Your task to perform on an android device: Open settings Image 0: 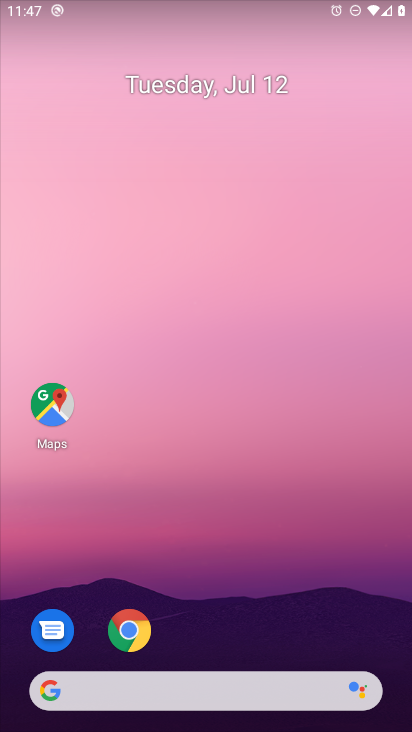
Step 0: drag from (300, 577) to (314, 17)
Your task to perform on an android device: Open settings Image 1: 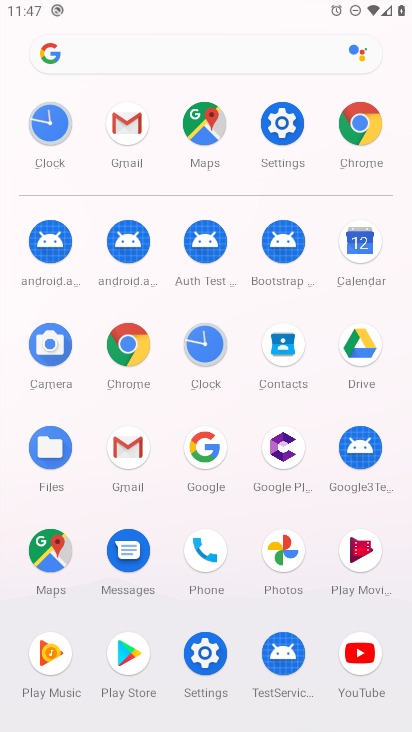
Step 1: click (274, 109)
Your task to perform on an android device: Open settings Image 2: 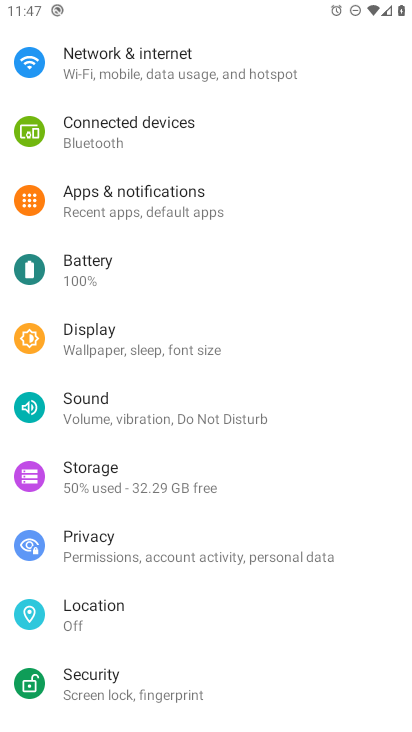
Step 2: task complete